Your task to perform on an android device: add a contact Image 0: 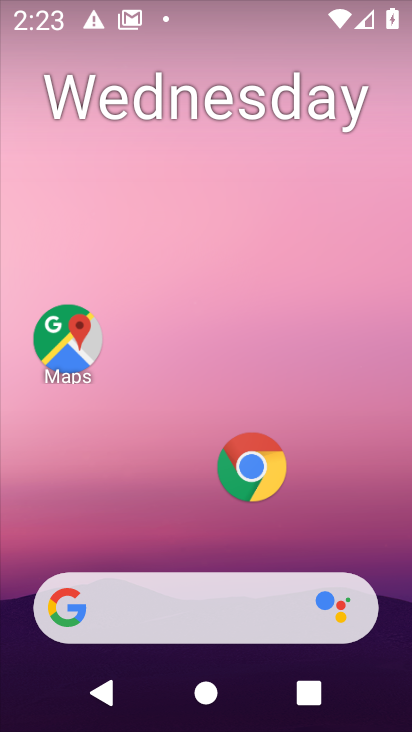
Step 0: drag from (149, 476) to (204, 244)
Your task to perform on an android device: add a contact Image 1: 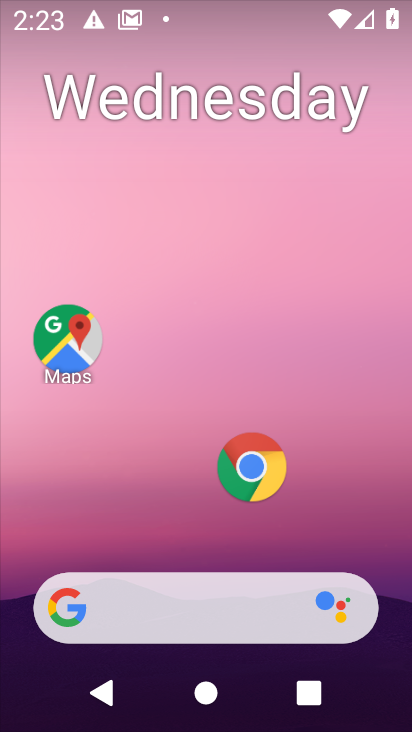
Step 1: task complete